Your task to perform on an android device: Go to network settings Image 0: 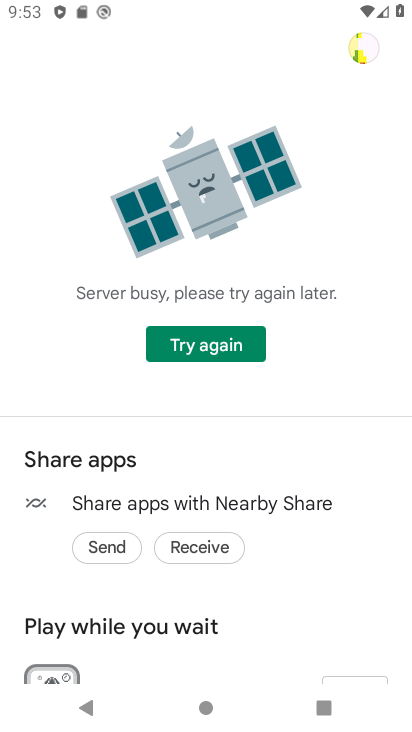
Step 0: press home button
Your task to perform on an android device: Go to network settings Image 1: 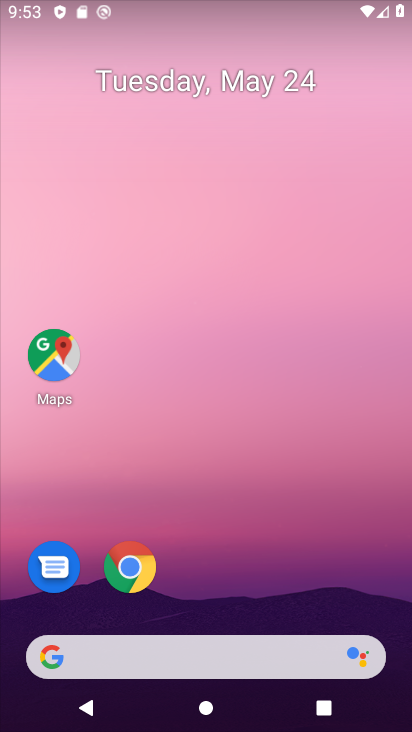
Step 1: drag from (392, 713) to (323, 210)
Your task to perform on an android device: Go to network settings Image 2: 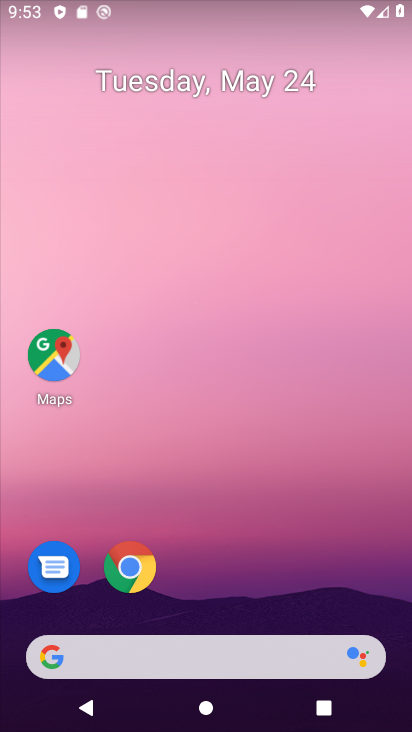
Step 2: drag from (401, 702) to (356, 193)
Your task to perform on an android device: Go to network settings Image 3: 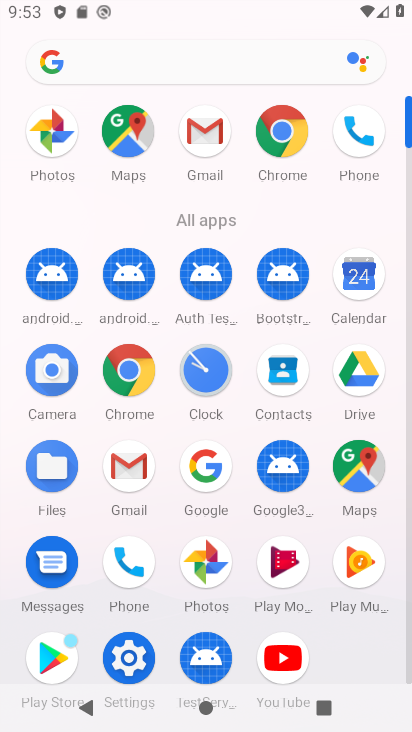
Step 3: click (133, 668)
Your task to perform on an android device: Go to network settings Image 4: 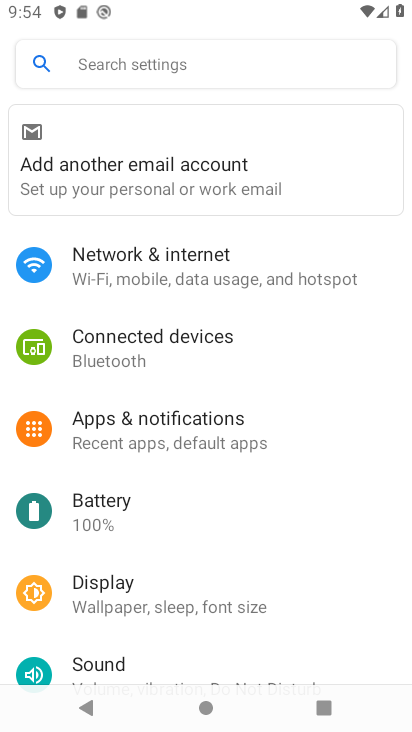
Step 4: click (136, 260)
Your task to perform on an android device: Go to network settings Image 5: 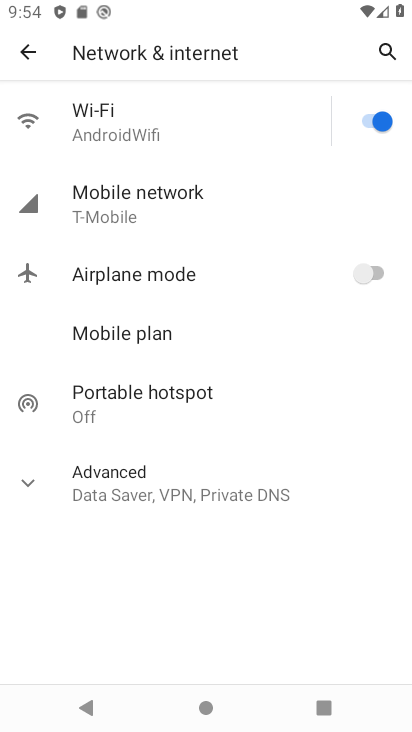
Step 5: click (142, 201)
Your task to perform on an android device: Go to network settings Image 6: 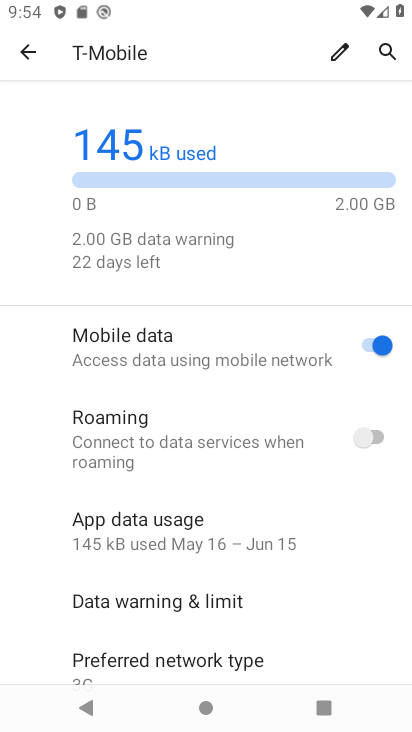
Step 6: click (270, 230)
Your task to perform on an android device: Go to network settings Image 7: 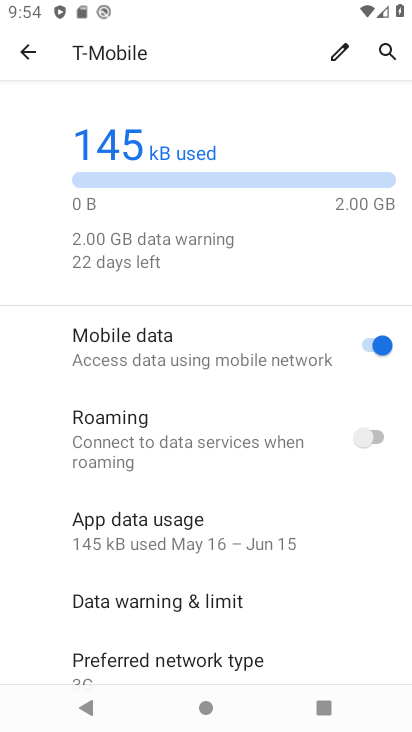
Step 7: task complete